Your task to perform on an android device: Open Google Chrome and click the shortcut for Amazon.com Image 0: 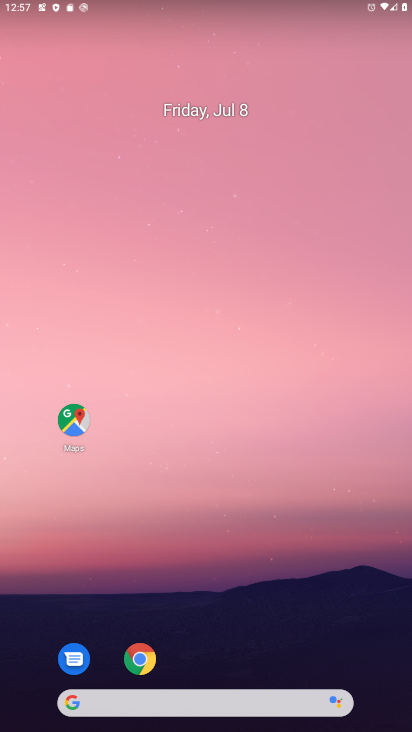
Step 0: click (137, 658)
Your task to perform on an android device: Open Google Chrome and click the shortcut for Amazon.com Image 1: 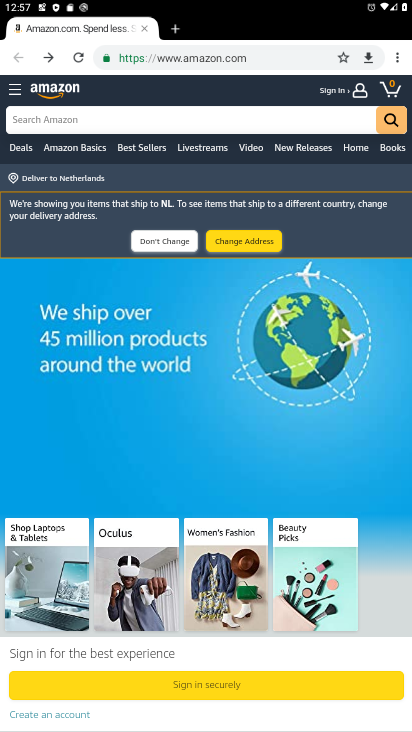
Step 1: task complete